Your task to perform on an android device: Open the phone app and click the voicemail tab. Image 0: 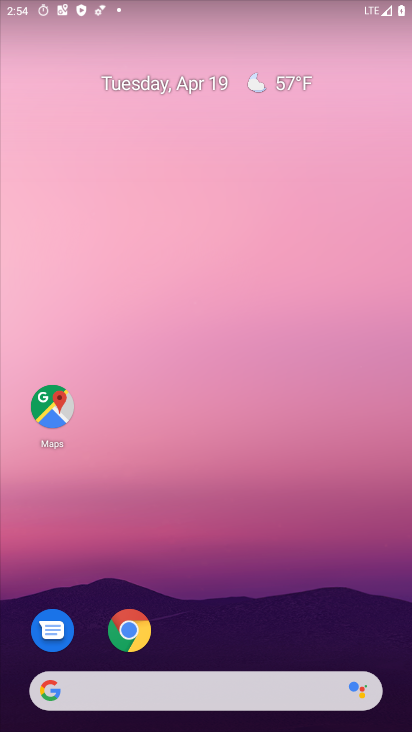
Step 0: drag from (220, 595) to (179, 86)
Your task to perform on an android device: Open the phone app and click the voicemail tab. Image 1: 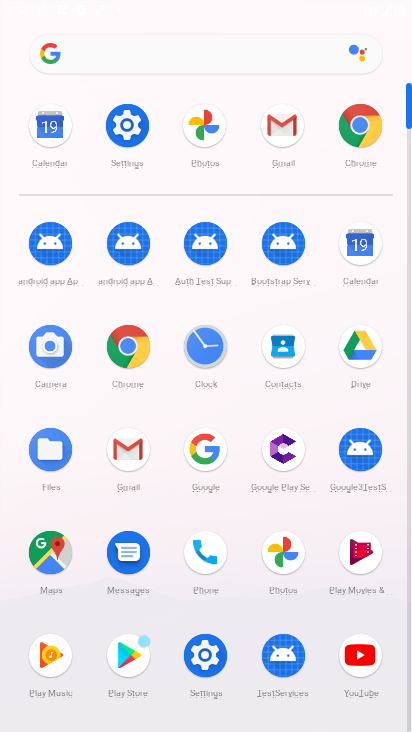
Step 1: click (204, 566)
Your task to perform on an android device: Open the phone app and click the voicemail tab. Image 2: 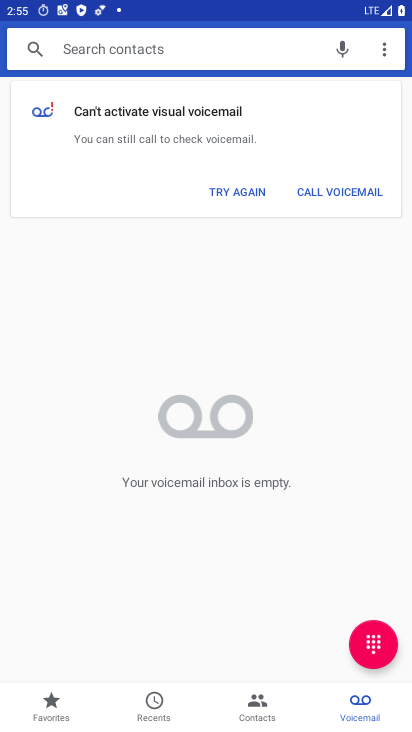
Step 2: click (352, 701)
Your task to perform on an android device: Open the phone app and click the voicemail tab. Image 3: 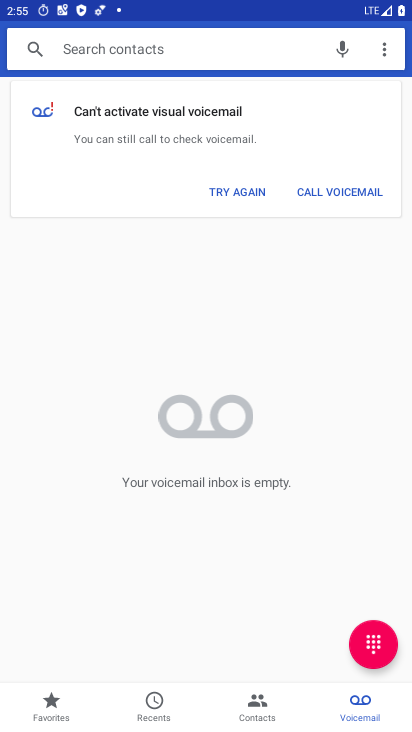
Step 3: task complete